Your task to perform on an android device: Empty the shopping cart on newegg.com. Search for apple airpods pro on newegg.com, select the first entry, and add it to the cart. Image 0: 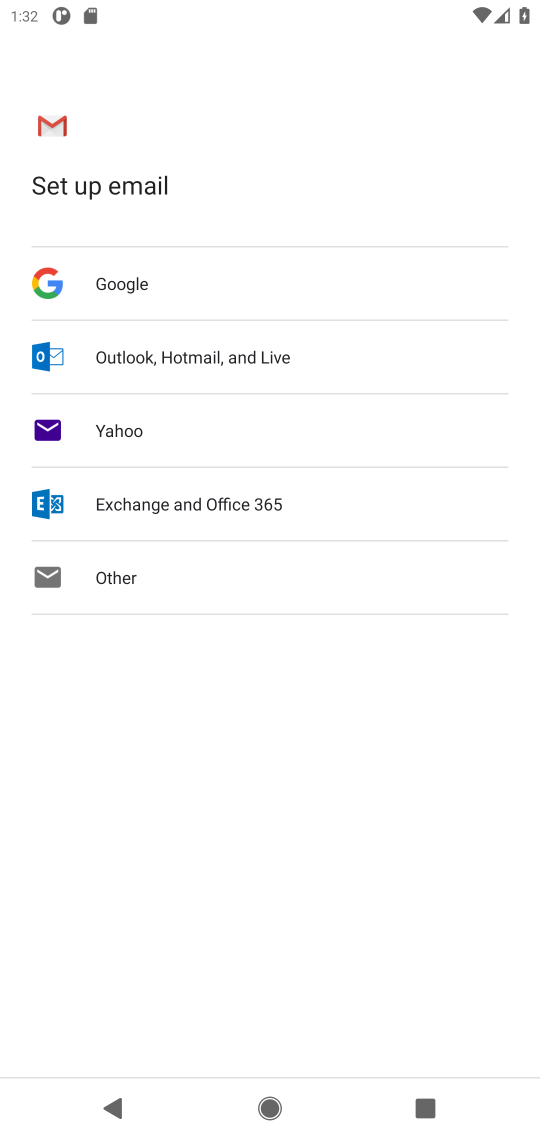
Step 0: press home button
Your task to perform on an android device: Empty the shopping cart on newegg.com. Search for apple airpods pro on newegg.com, select the first entry, and add it to the cart. Image 1: 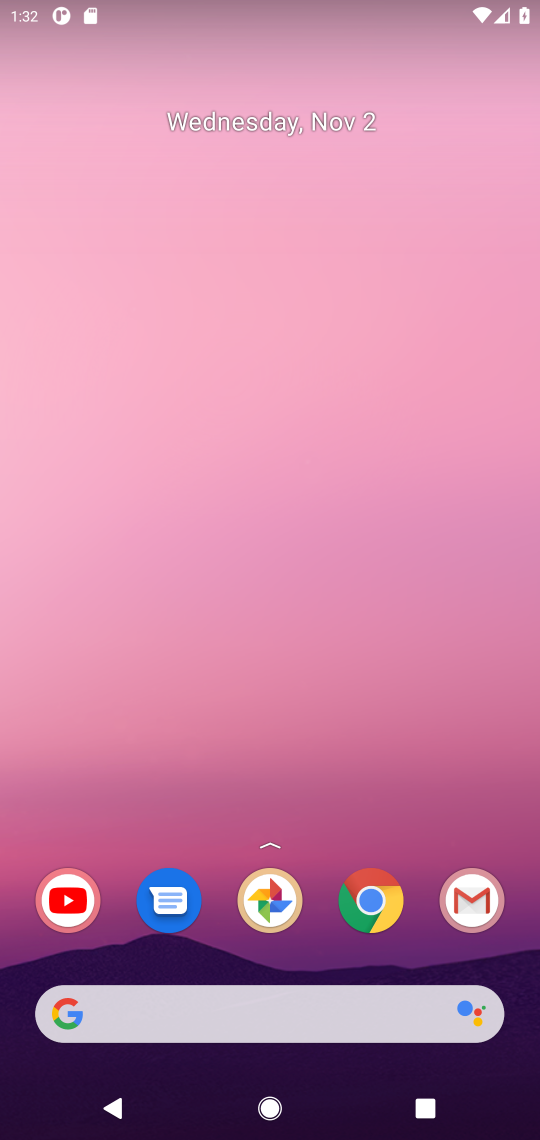
Step 1: click (375, 888)
Your task to perform on an android device: Empty the shopping cart on newegg.com. Search for apple airpods pro on newegg.com, select the first entry, and add it to the cart. Image 2: 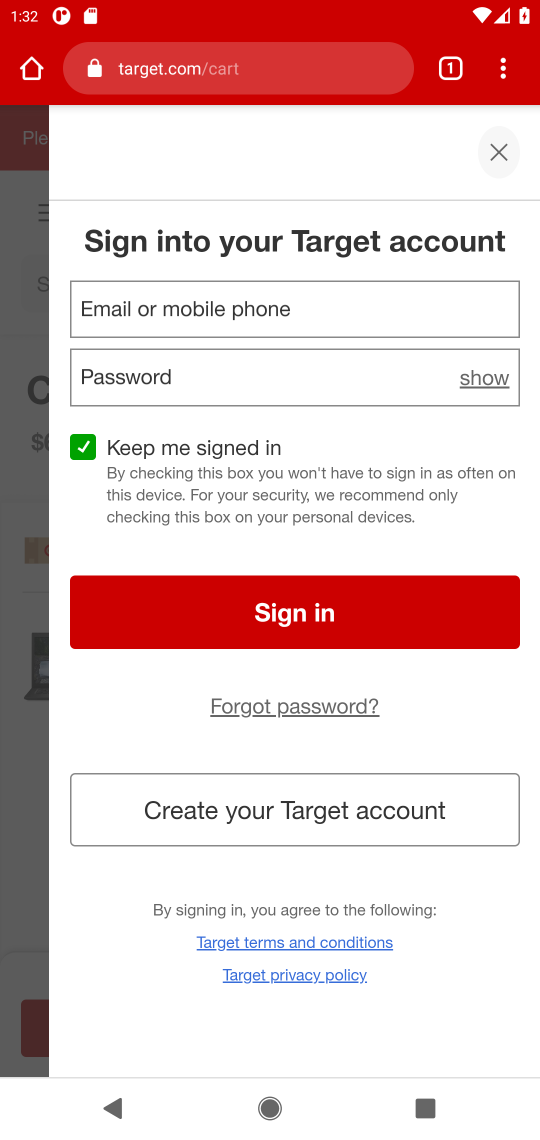
Step 2: click (198, 68)
Your task to perform on an android device: Empty the shopping cart on newegg.com. Search for apple airpods pro on newegg.com, select the first entry, and add it to the cart. Image 3: 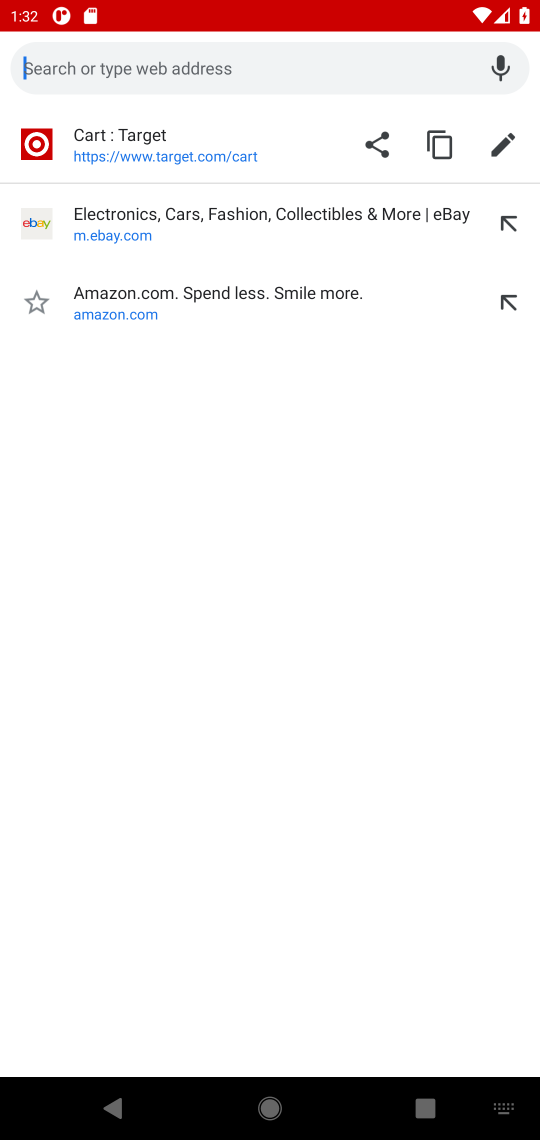
Step 3: type "newegg"
Your task to perform on an android device: Empty the shopping cart on newegg.com. Search for apple airpods pro on newegg.com, select the first entry, and add it to the cart. Image 4: 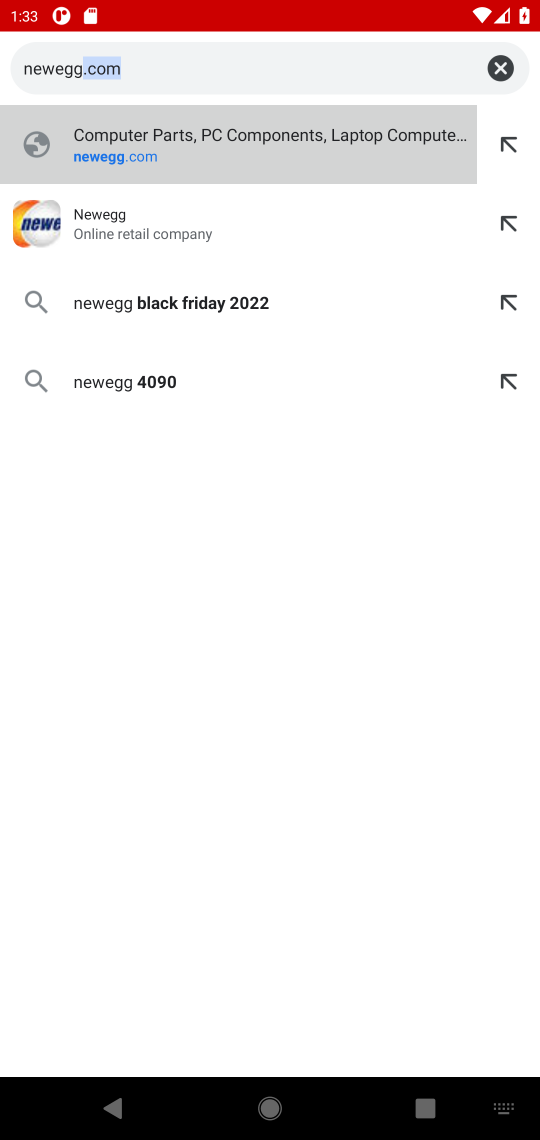
Step 4: click (108, 218)
Your task to perform on an android device: Empty the shopping cart on newegg.com. Search for apple airpods pro on newegg.com, select the first entry, and add it to the cart. Image 5: 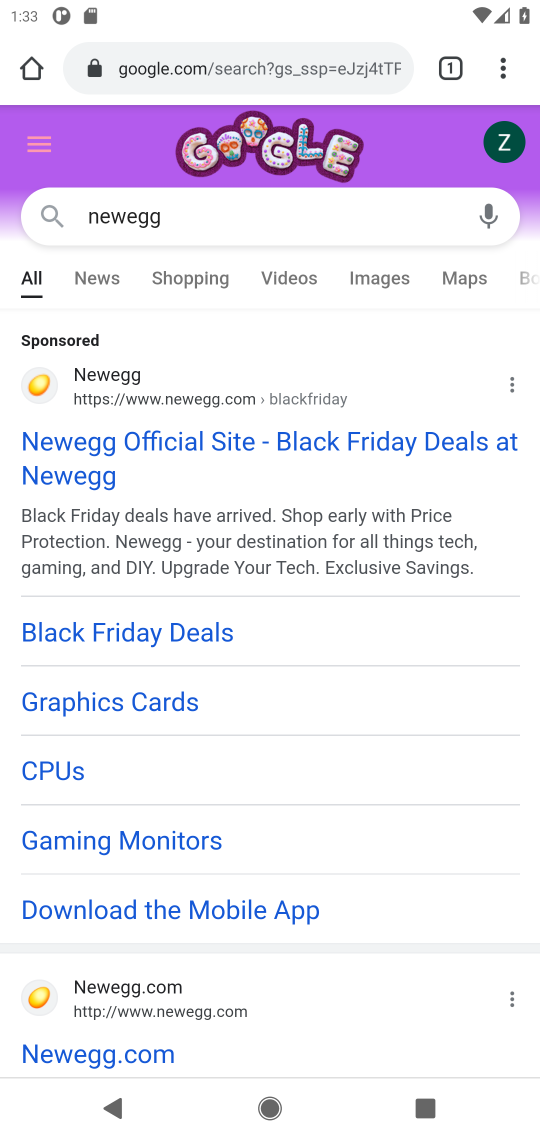
Step 5: click (169, 437)
Your task to perform on an android device: Empty the shopping cart on newegg.com. Search for apple airpods pro on newegg.com, select the first entry, and add it to the cart. Image 6: 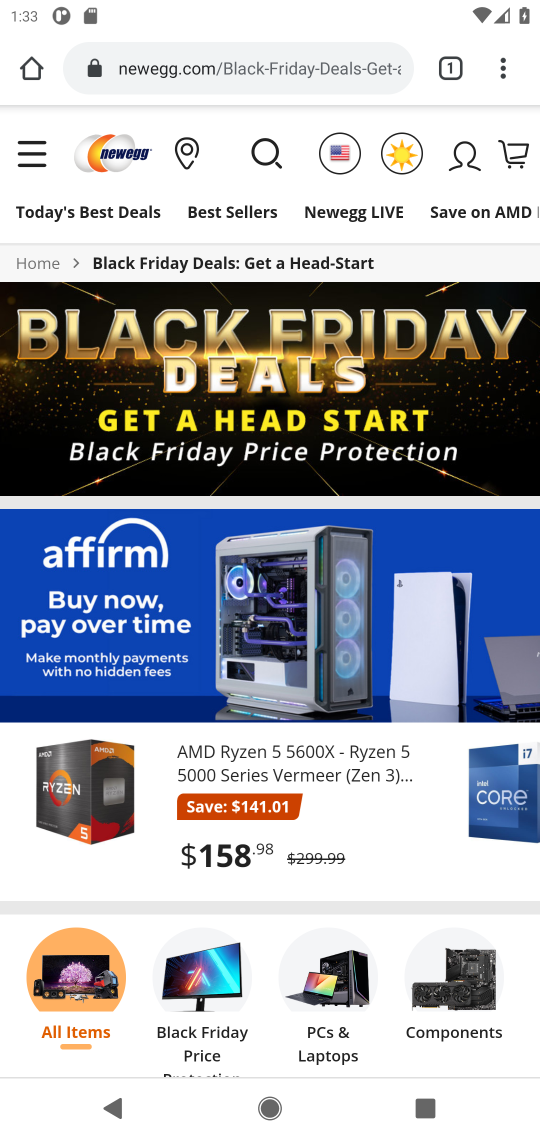
Step 6: click (264, 153)
Your task to perform on an android device: Empty the shopping cart on newegg.com. Search for apple airpods pro on newegg.com, select the first entry, and add it to the cart. Image 7: 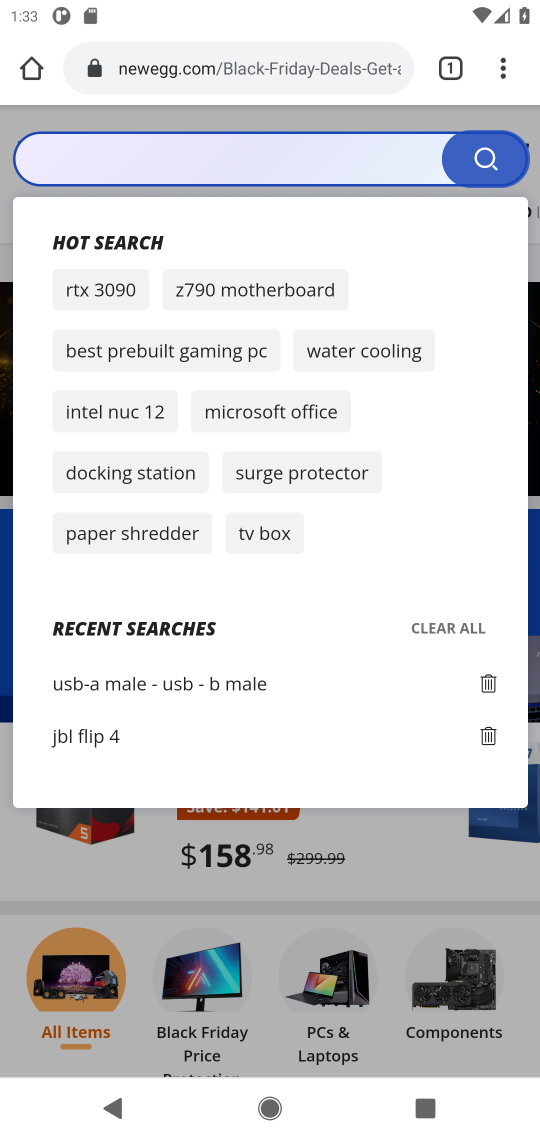
Step 7: click (149, 159)
Your task to perform on an android device: Empty the shopping cart on newegg.com. Search for apple airpods pro on newegg.com, select the first entry, and add it to the cart. Image 8: 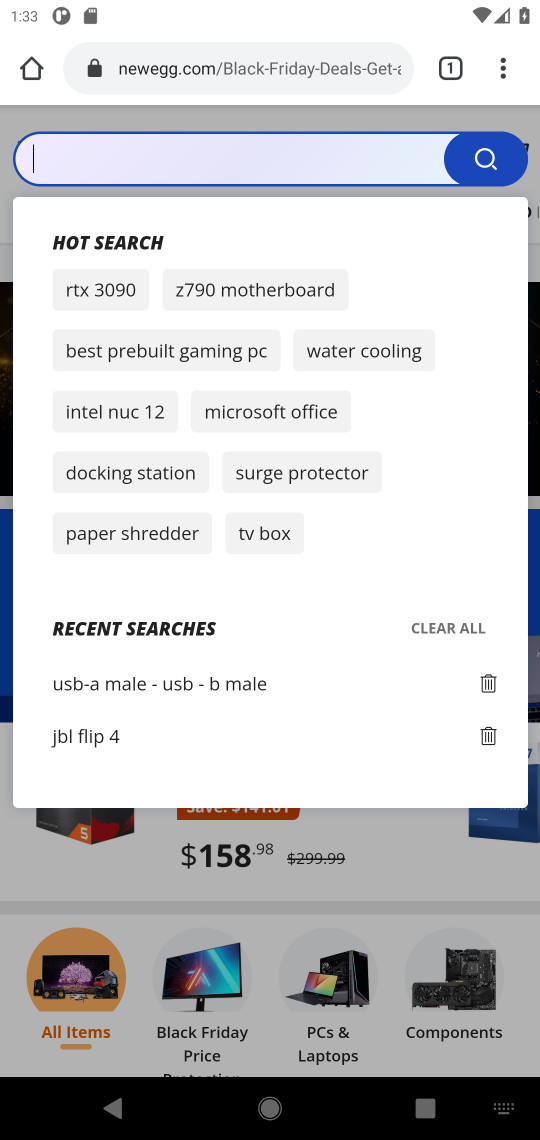
Step 8: type "apple airpods"
Your task to perform on an android device: Empty the shopping cart on newegg.com. Search for apple airpods pro on newegg.com, select the first entry, and add it to the cart. Image 9: 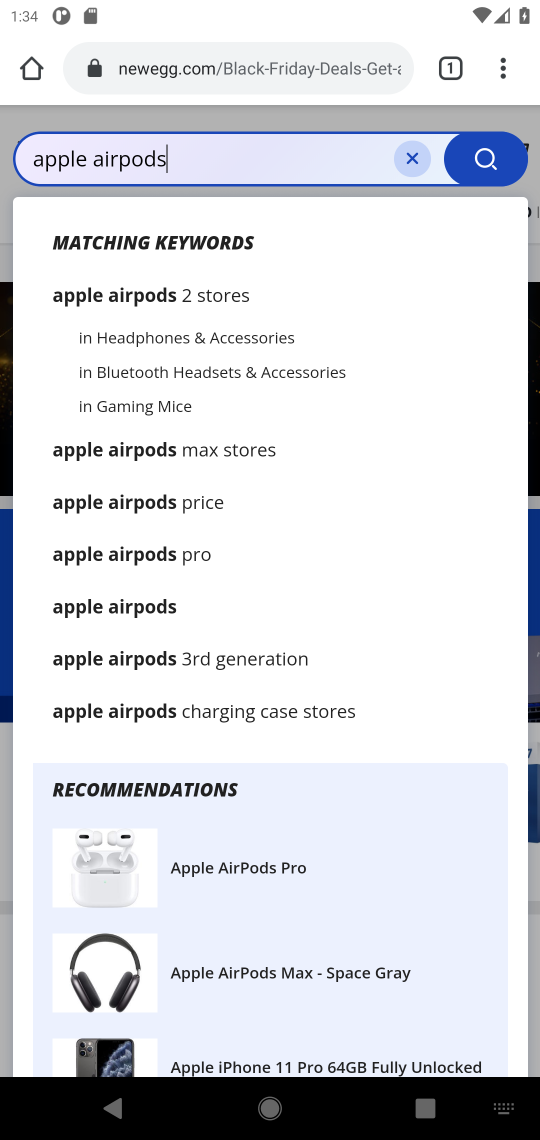
Step 9: click (136, 453)
Your task to perform on an android device: Empty the shopping cart on newegg.com. Search for apple airpods pro on newegg.com, select the first entry, and add it to the cart. Image 10: 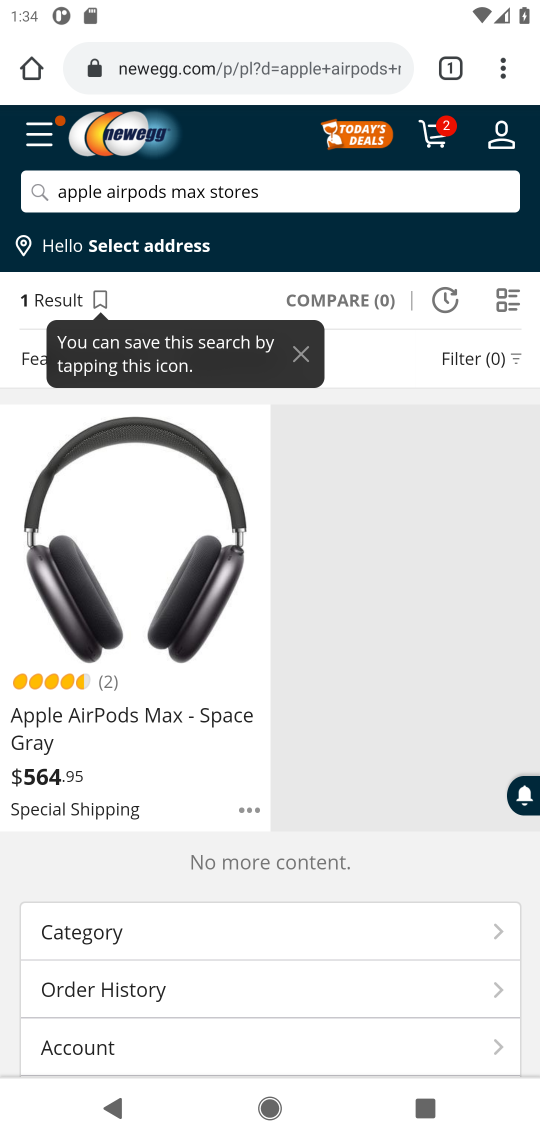
Step 10: click (147, 574)
Your task to perform on an android device: Empty the shopping cart on newegg.com. Search for apple airpods pro on newegg.com, select the first entry, and add it to the cart. Image 11: 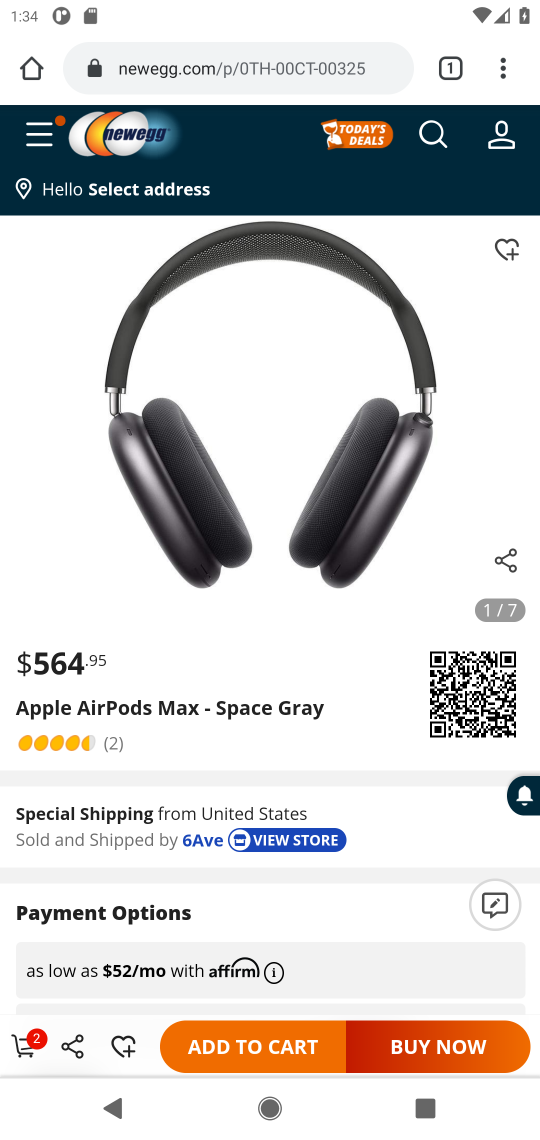
Step 11: click (256, 1046)
Your task to perform on an android device: Empty the shopping cart on newegg.com. Search for apple airpods pro on newegg.com, select the first entry, and add it to the cart. Image 12: 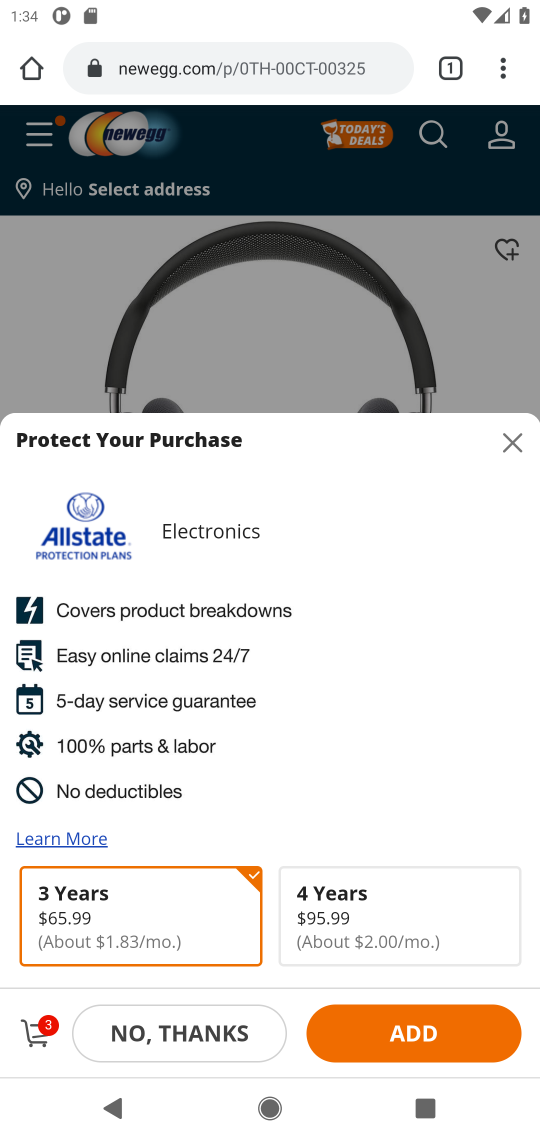
Step 12: click (512, 437)
Your task to perform on an android device: Empty the shopping cart on newegg.com. Search for apple airpods pro on newegg.com, select the first entry, and add it to the cart. Image 13: 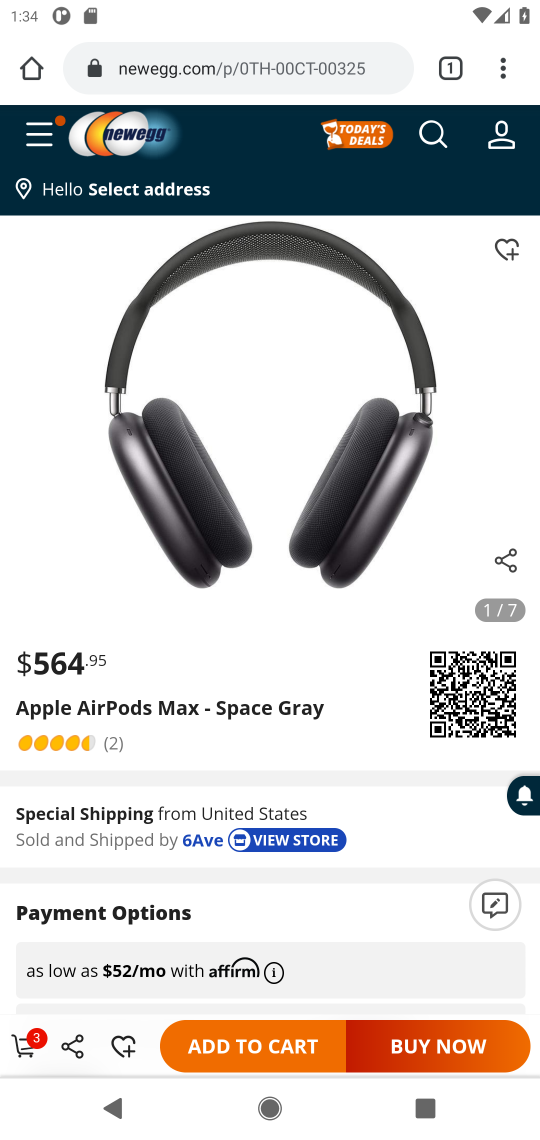
Step 13: click (15, 1053)
Your task to perform on an android device: Empty the shopping cart on newegg.com. Search for apple airpods pro on newegg.com, select the first entry, and add it to the cart. Image 14: 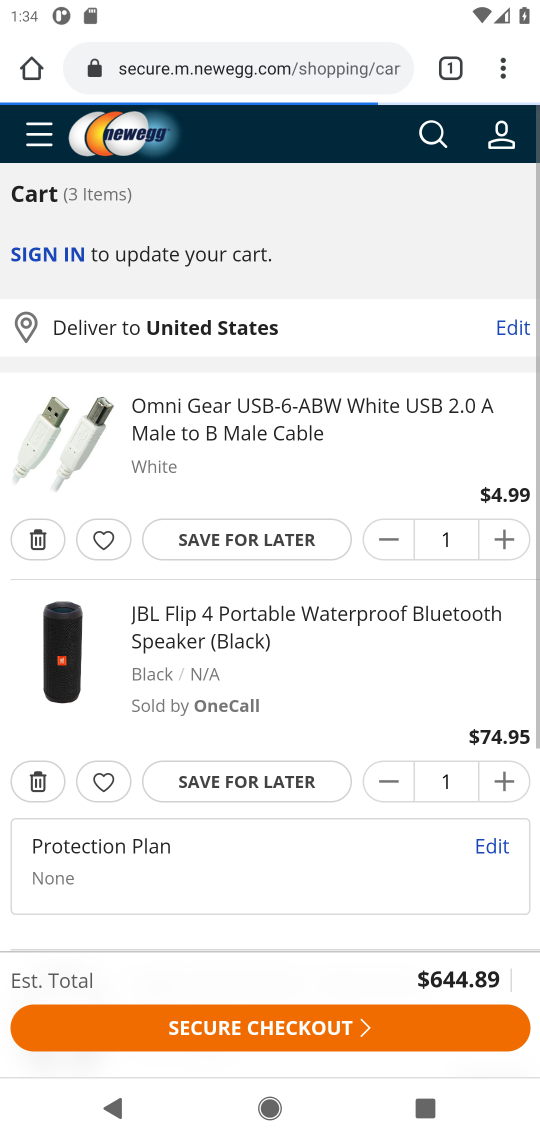
Step 14: click (23, 1043)
Your task to perform on an android device: Empty the shopping cart on newegg.com. Search for apple airpods pro on newegg.com, select the first entry, and add it to the cart. Image 15: 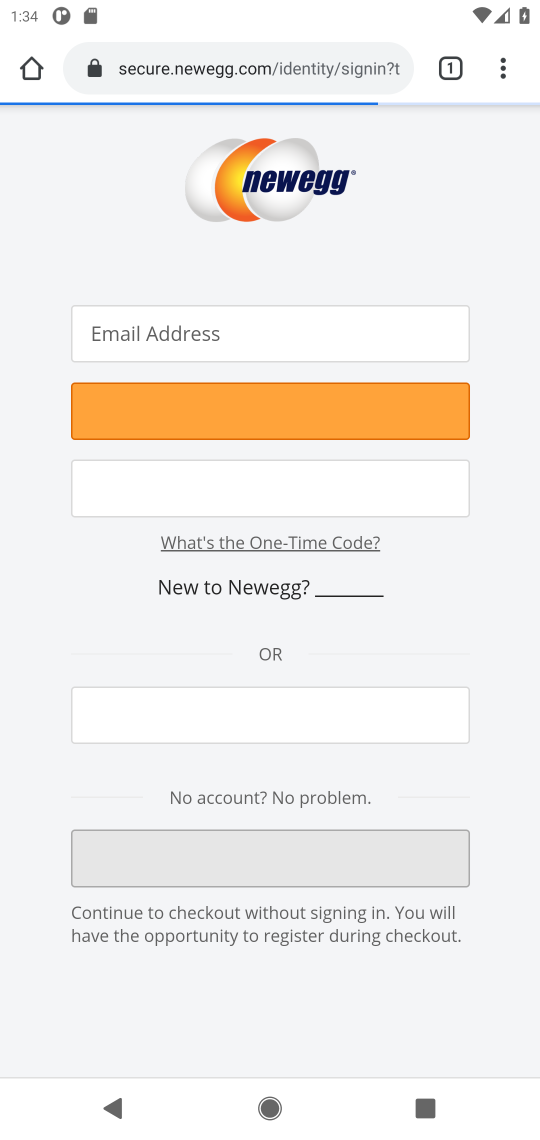
Step 15: click (292, 984)
Your task to perform on an android device: Empty the shopping cart on newegg.com. Search for apple airpods pro on newegg.com, select the first entry, and add it to the cart. Image 16: 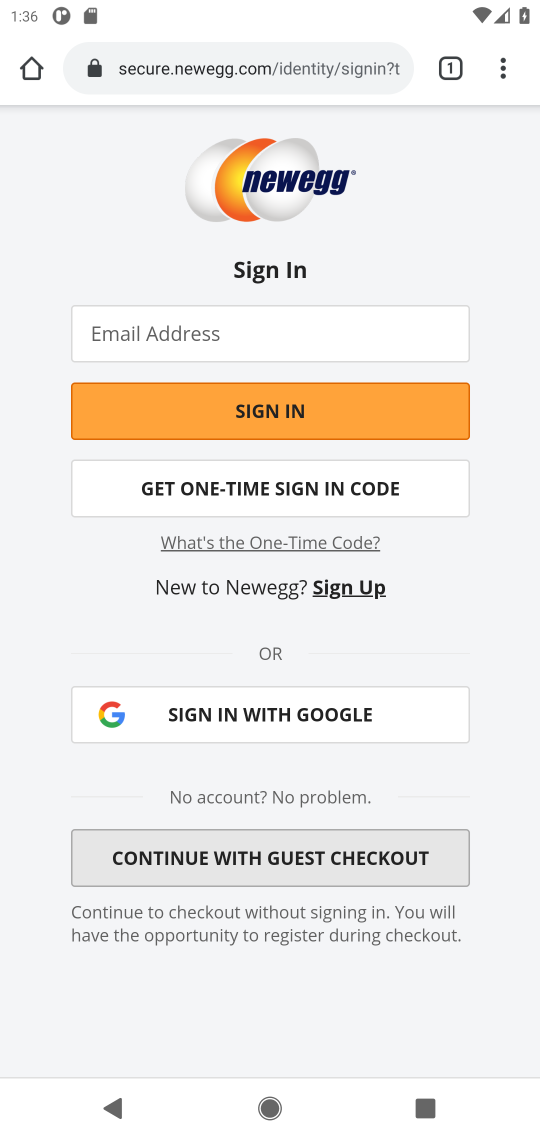
Step 16: task complete